Your task to perform on an android device: turn off wifi Image 0: 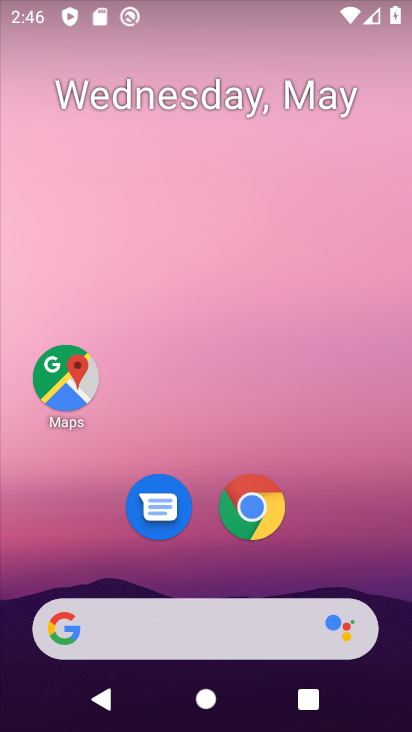
Step 0: drag from (347, 515) to (243, 6)
Your task to perform on an android device: turn off wifi Image 1: 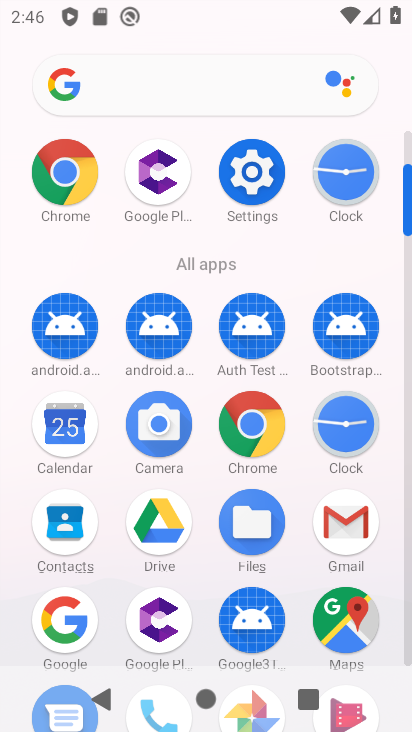
Step 1: drag from (14, 389) to (6, 260)
Your task to perform on an android device: turn off wifi Image 2: 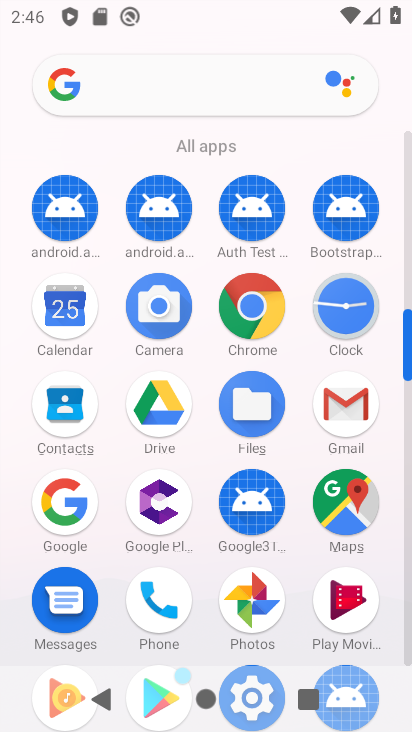
Step 2: drag from (15, 579) to (1, 259)
Your task to perform on an android device: turn off wifi Image 3: 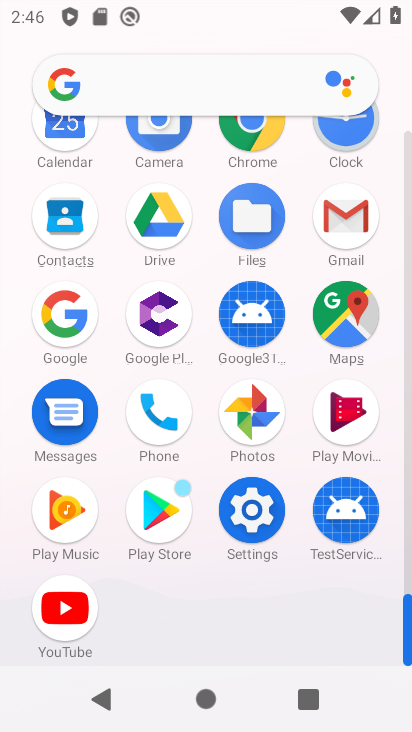
Step 3: click (253, 510)
Your task to perform on an android device: turn off wifi Image 4: 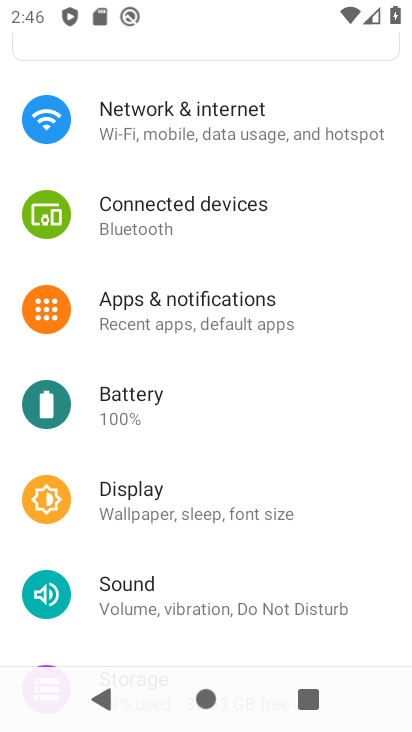
Step 4: click (229, 135)
Your task to perform on an android device: turn off wifi Image 5: 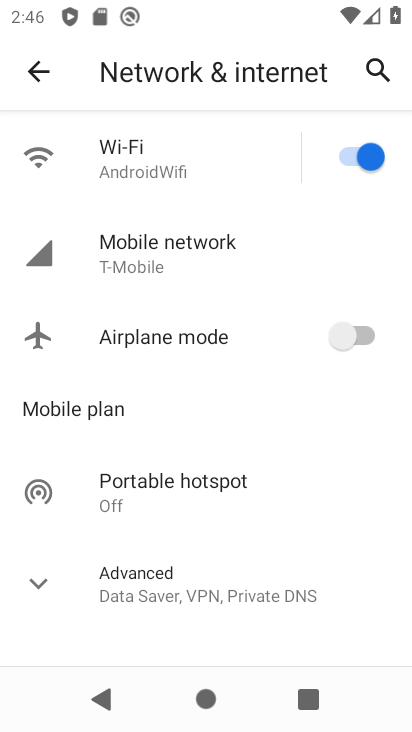
Step 5: click (351, 156)
Your task to perform on an android device: turn off wifi Image 6: 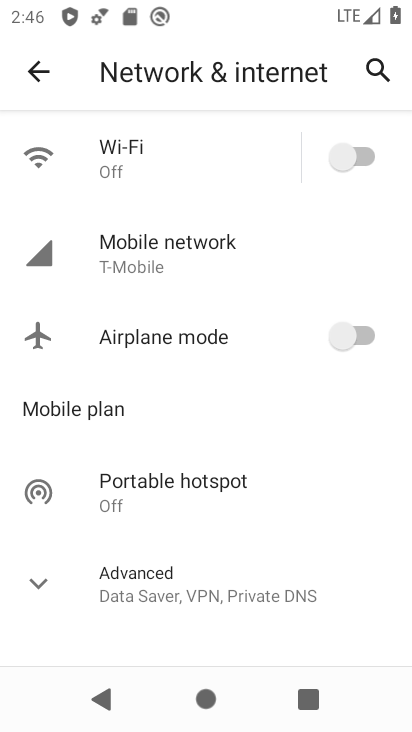
Step 6: click (34, 579)
Your task to perform on an android device: turn off wifi Image 7: 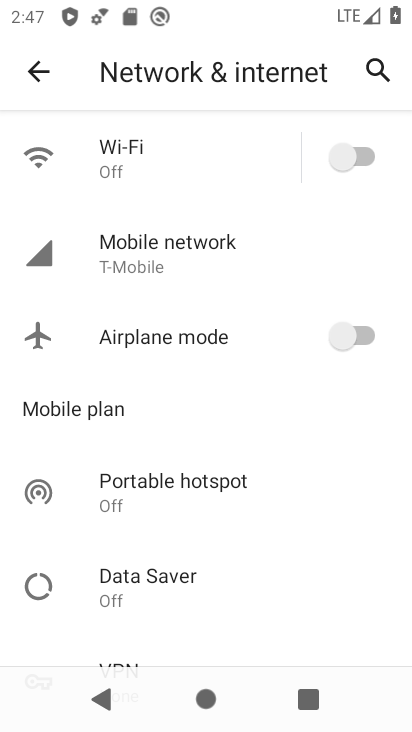
Step 7: task complete